Your task to perform on an android device: Turn on the flashlight Image 0: 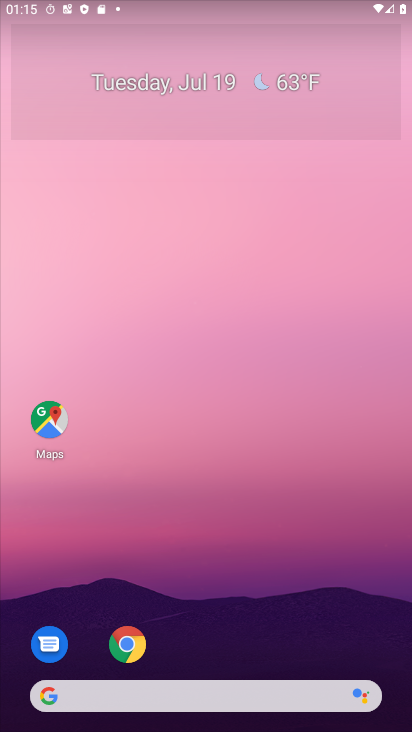
Step 0: drag from (210, 725) to (210, 205)
Your task to perform on an android device: Turn on the flashlight Image 1: 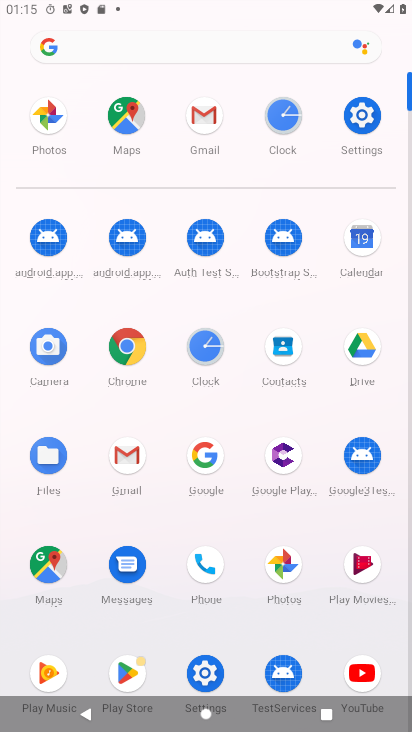
Step 1: click (362, 114)
Your task to perform on an android device: Turn on the flashlight Image 2: 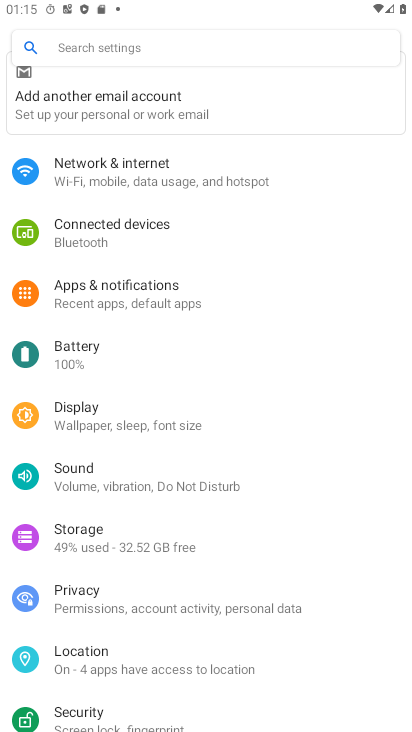
Step 2: drag from (136, 689) to (137, 421)
Your task to perform on an android device: Turn on the flashlight Image 3: 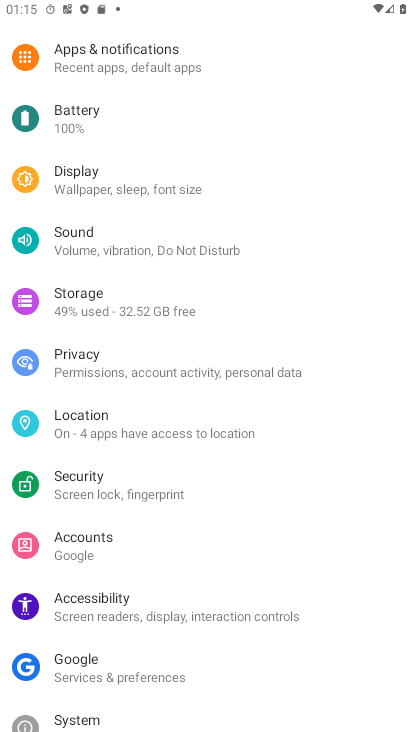
Step 3: drag from (161, 681) to (156, 621)
Your task to perform on an android device: Turn on the flashlight Image 4: 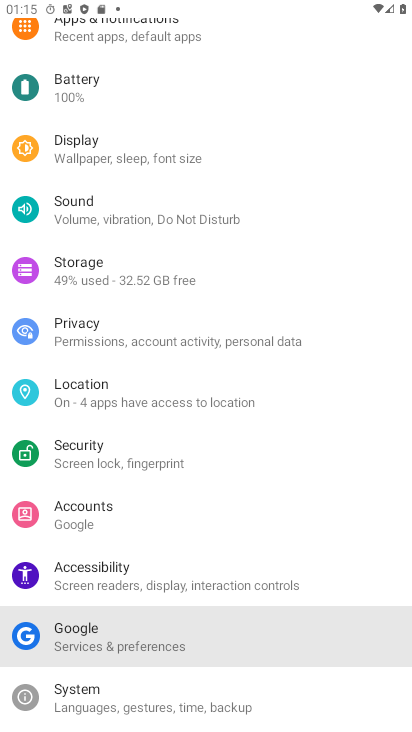
Step 4: drag from (147, 410) to (147, 366)
Your task to perform on an android device: Turn on the flashlight Image 5: 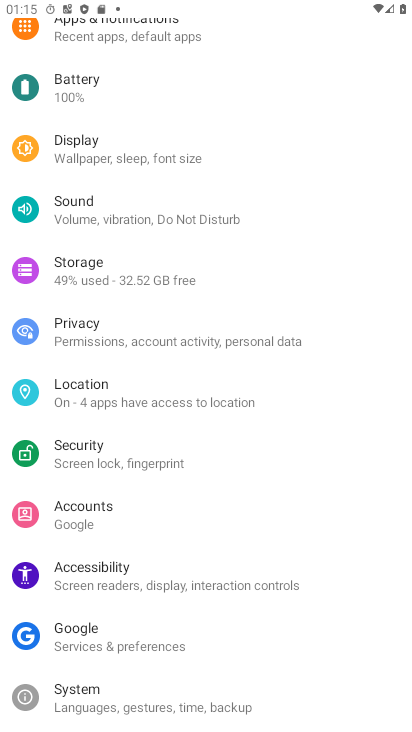
Step 5: click (181, 690)
Your task to perform on an android device: Turn on the flashlight Image 6: 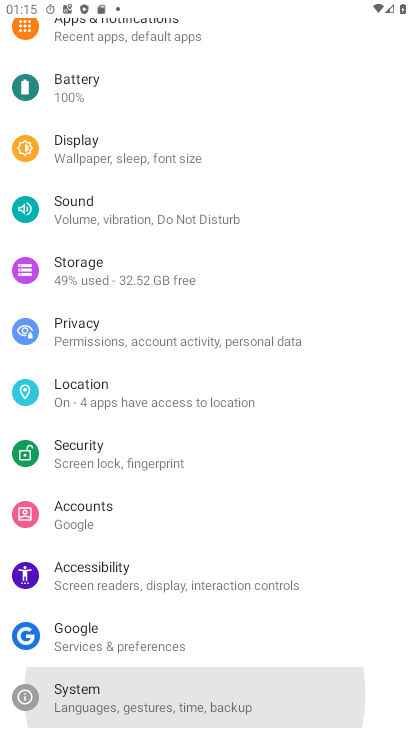
Step 6: task complete